Your task to perform on an android device: clear all cookies in the chrome app Image 0: 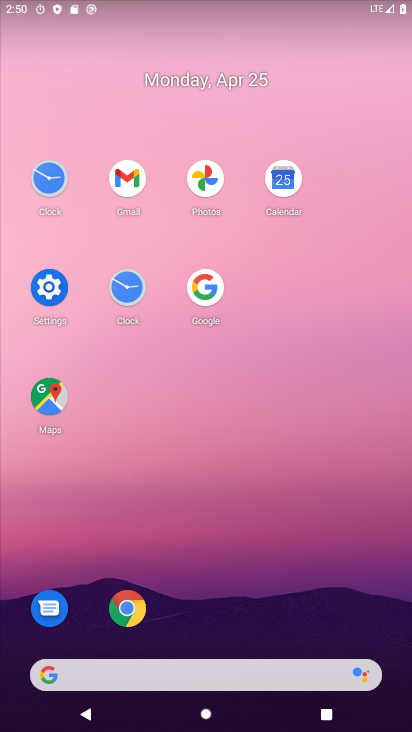
Step 0: click (131, 600)
Your task to perform on an android device: clear all cookies in the chrome app Image 1: 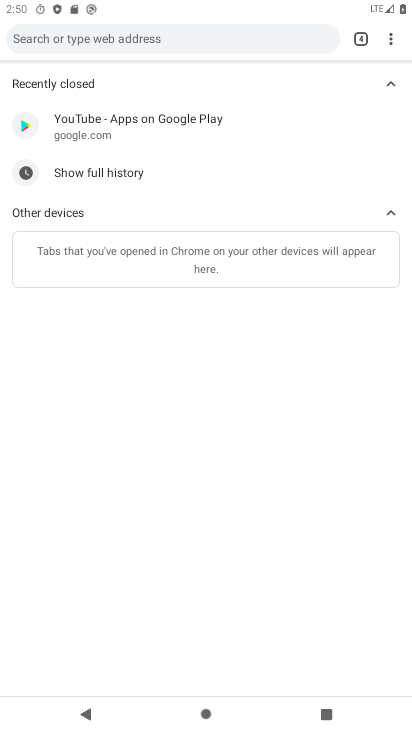
Step 1: click (393, 39)
Your task to perform on an android device: clear all cookies in the chrome app Image 2: 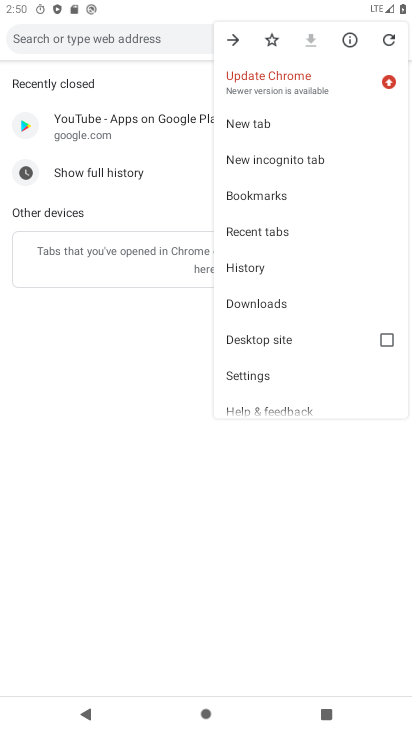
Step 2: click (279, 373)
Your task to perform on an android device: clear all cookies in the chrome app Image 3: 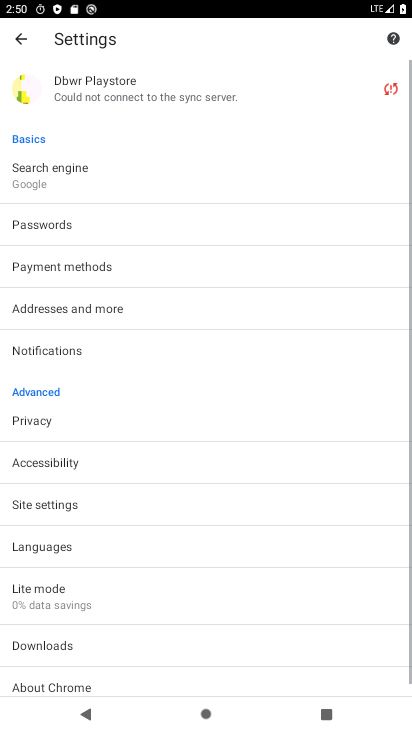
Step 3: drag from (202, 518) to (250, 188)
Your task to perform on an android device: clear all cookies in the chrome app Image 4: 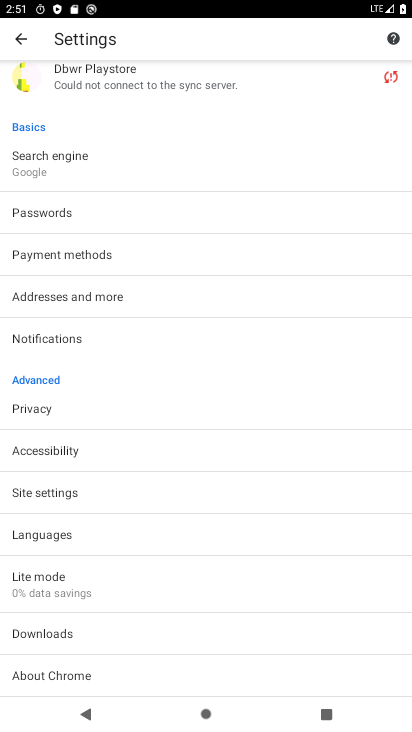
Step 4: click (64, 407)
Your task to perform on an android device: clear all cookies in the chrome app Image 5: 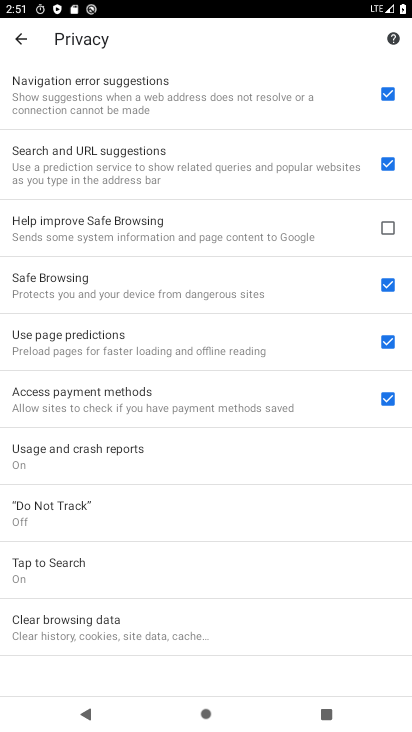
Step 5: drag from (214, 674) to (220, 289)
Your task to perform on an android device: clear all cookies in the chrome app Image 6: 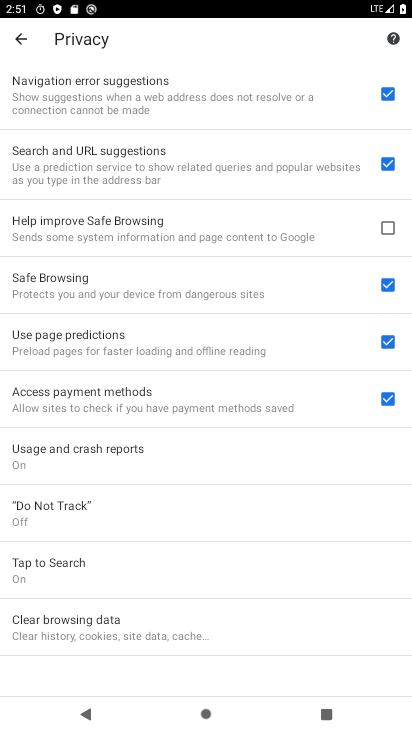
Step 6: drag from (189, 509) to (213, 183)
Your task to perform on an android device: clear all cookies in the chrome app Image 7: 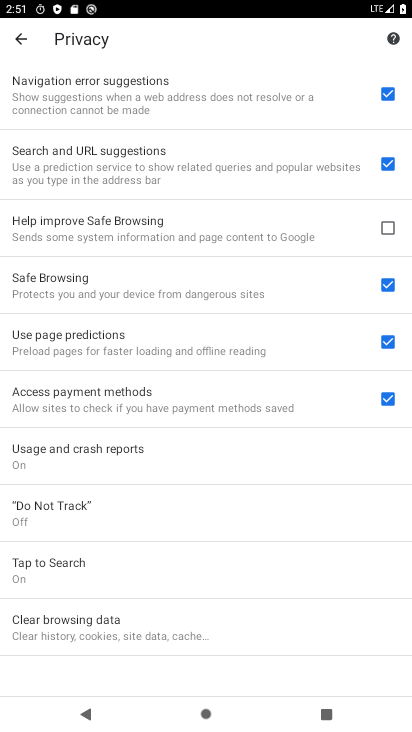
Step 7: drag from (205, 606) to (248, 138)
Your task to perform on an android device: clear all cookies in the chrome app Image 8: 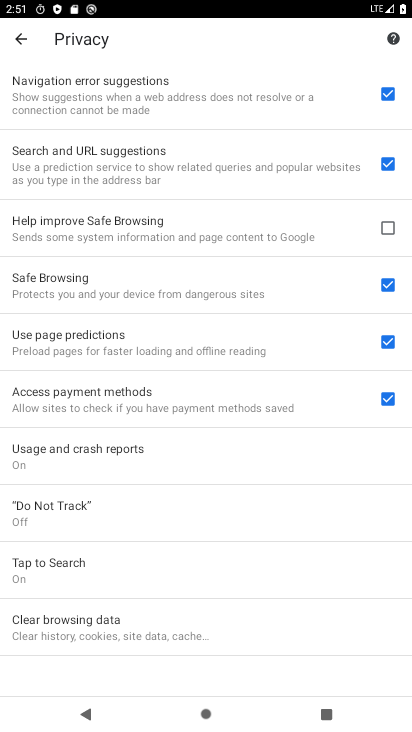
Step 8: click (189, 617)
Your task to perform on an android device: clear all cookies in the chrome app Image 9: 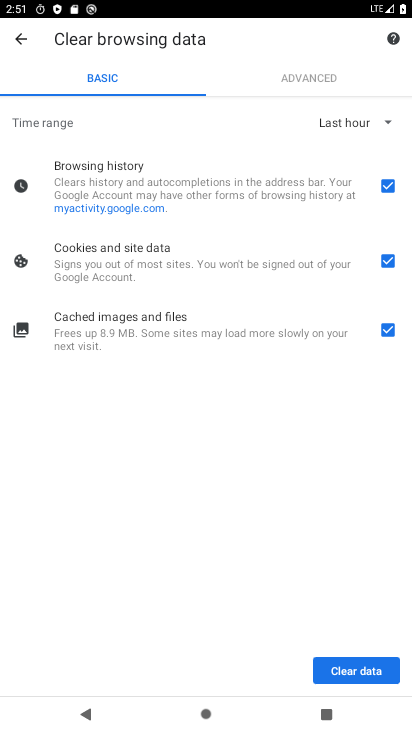
Step 9: click (384, 664)
Your task to perform on an android device: clear all cookies in the chrome app Image 10: 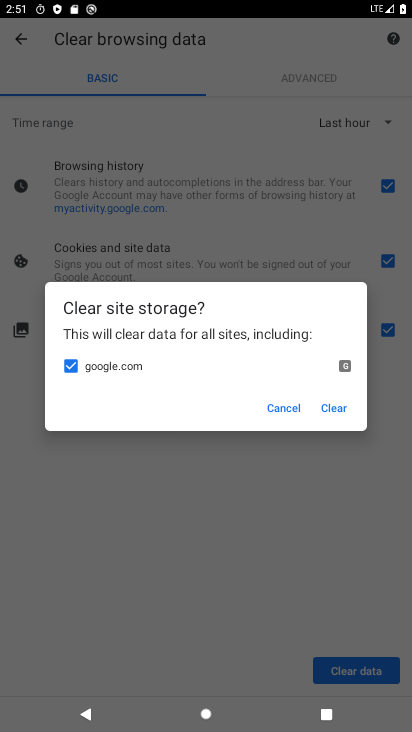
Step 10: click (319, 407)
Your task to perform on an android device: clear all cookies in the chrome app Image 11: 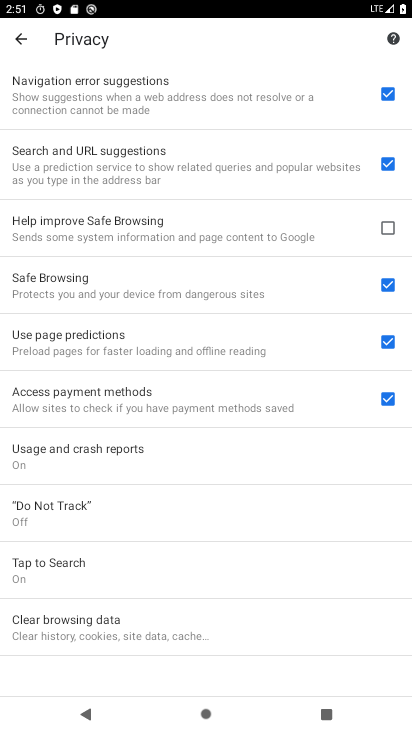
Step 11: task complete